Your task to perform on an android device: read, delete, or share a saved page in the chrome app Image 0: 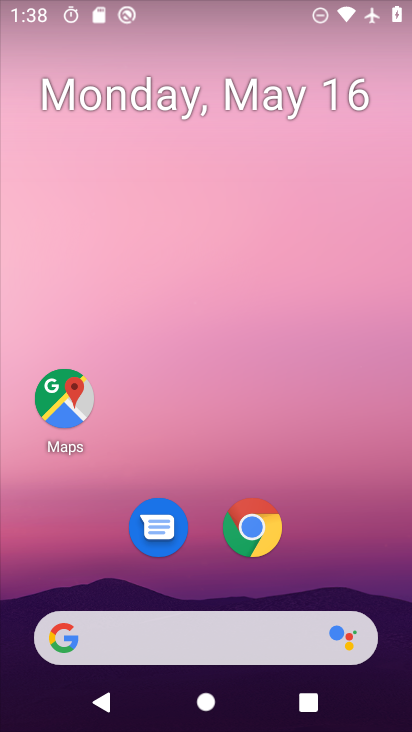
Step 0: click (254, 535)
Your task to perform on an android device: read, delete, or share a saved page in the chrome app Image 1: 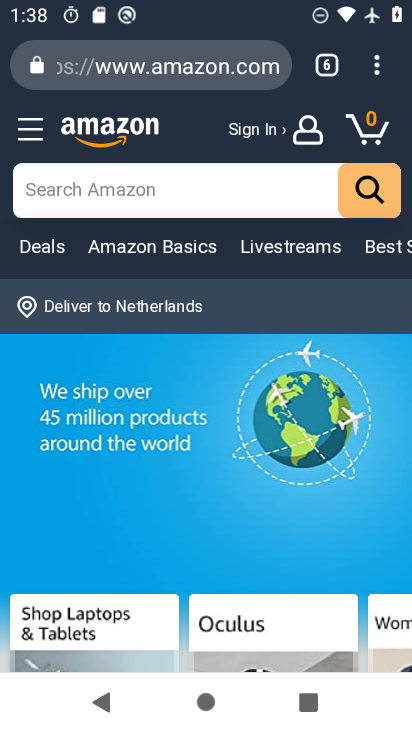
Step 1: drag from (378, 76) to (148, 427)
Your task to perform on an android device: read, delete, or share a saved page in the chrome app Image 2: 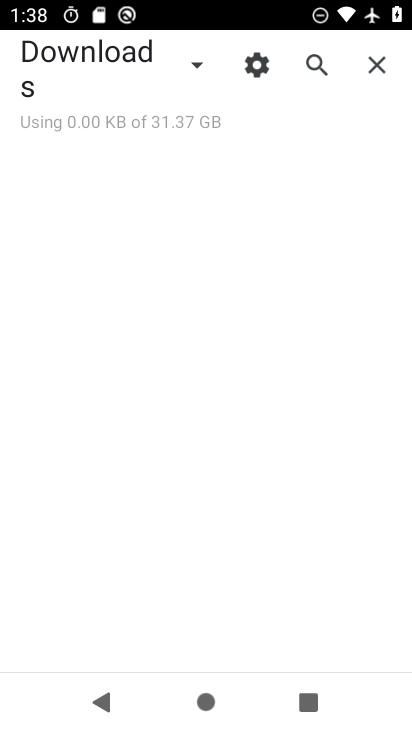
Step 2: click (187, 58)
Your task to perform on an android device: read, delete, or share a saved page in the chrome app Image 3: 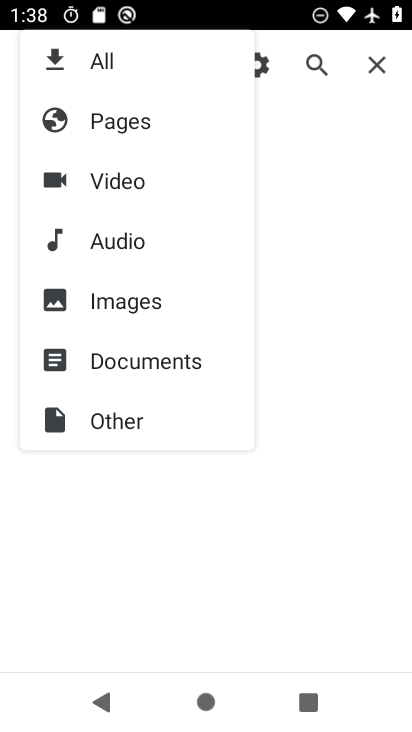
Step 3: click (114, 126)
Your task to perform on an android device: read, delete, or share a saved page in the chrome app Image 4: 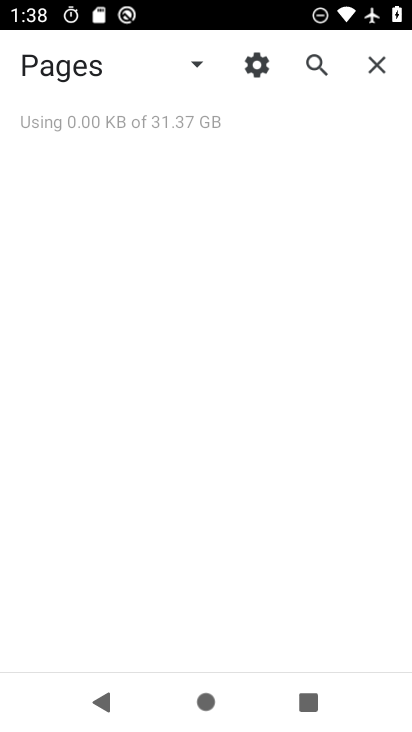
Step 4: task complete